Your task to perform on an android device: What's the latest technology news? Image 0: 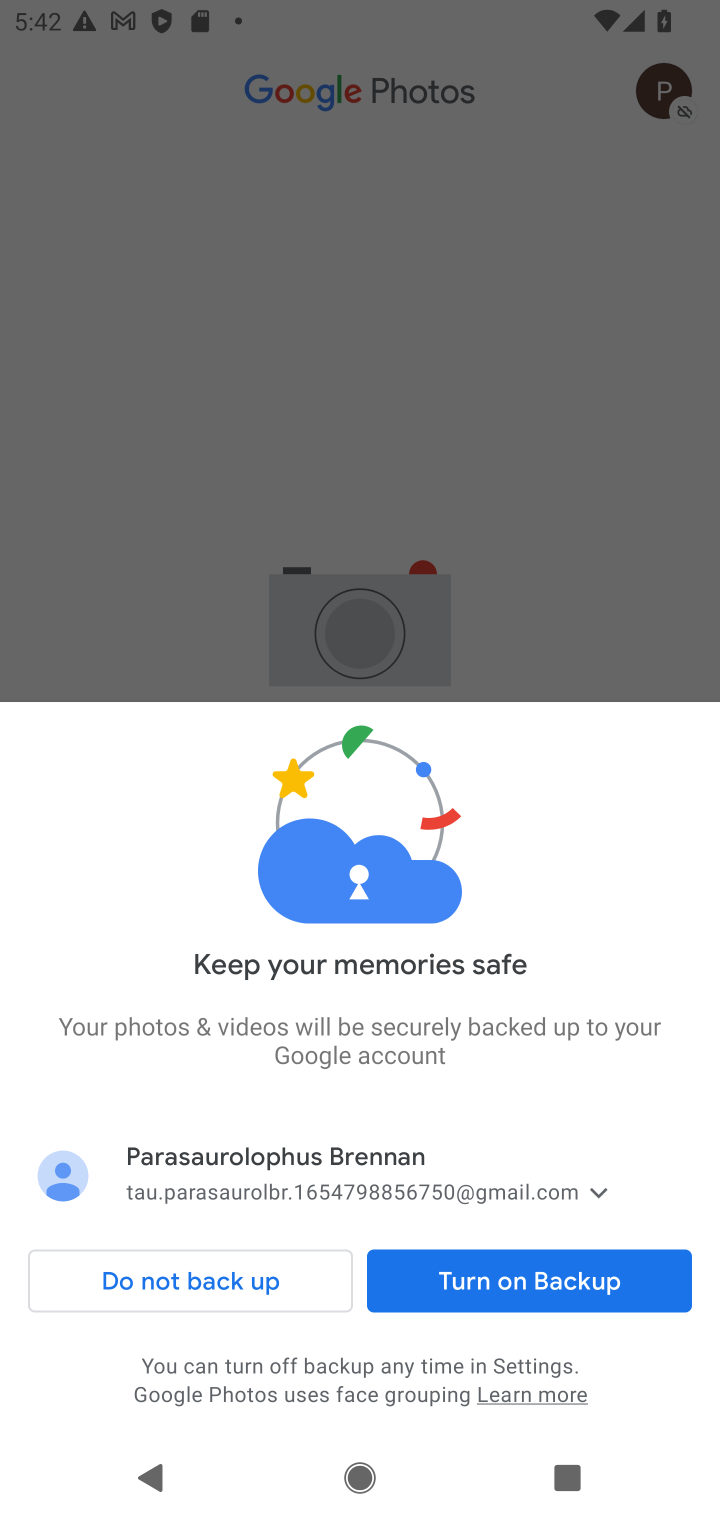
Step 0: press home button
Your task to perform on an android device: What's the latest technology news? Image 1: 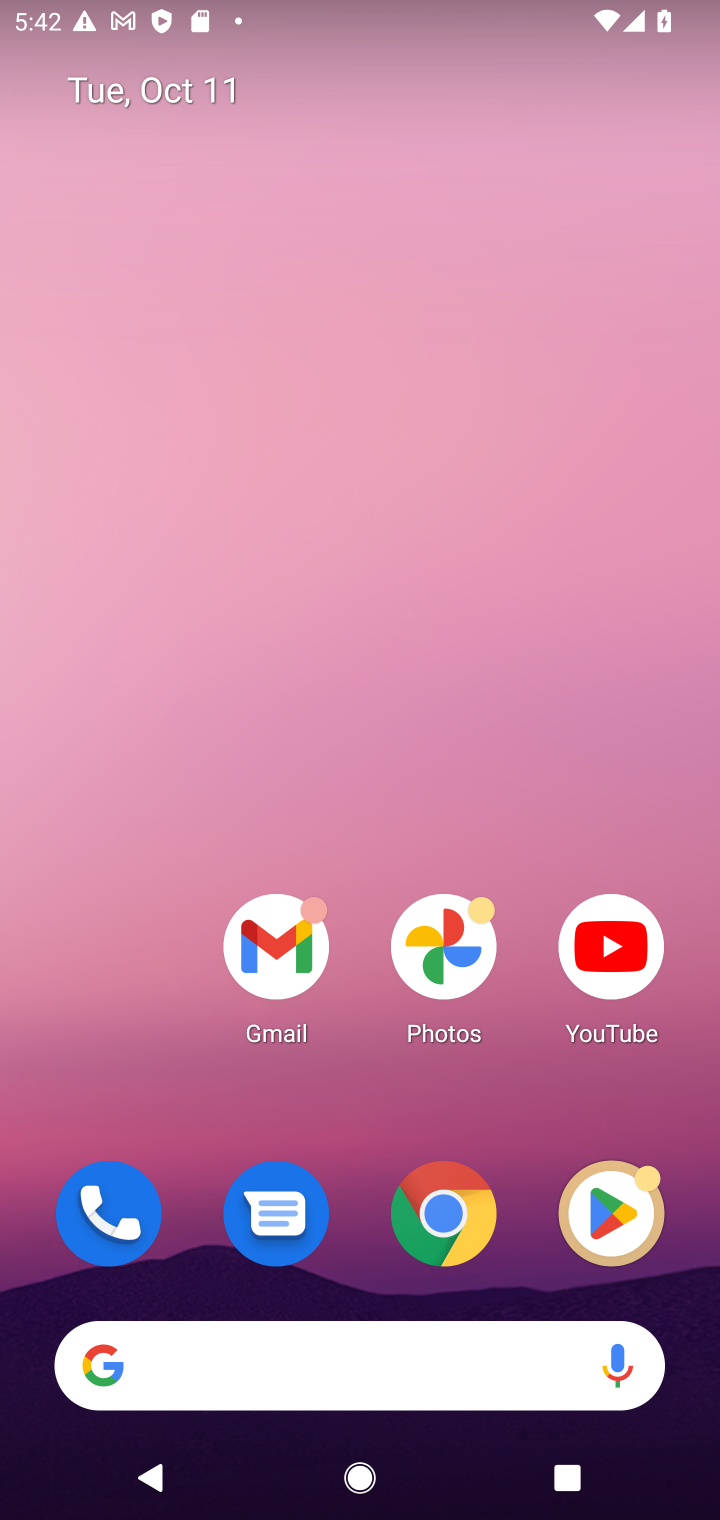
Step 1: drag from (363, 1352) to (375, 100)
Your task to perform on an android device: What's the latest technology news? Image 2: 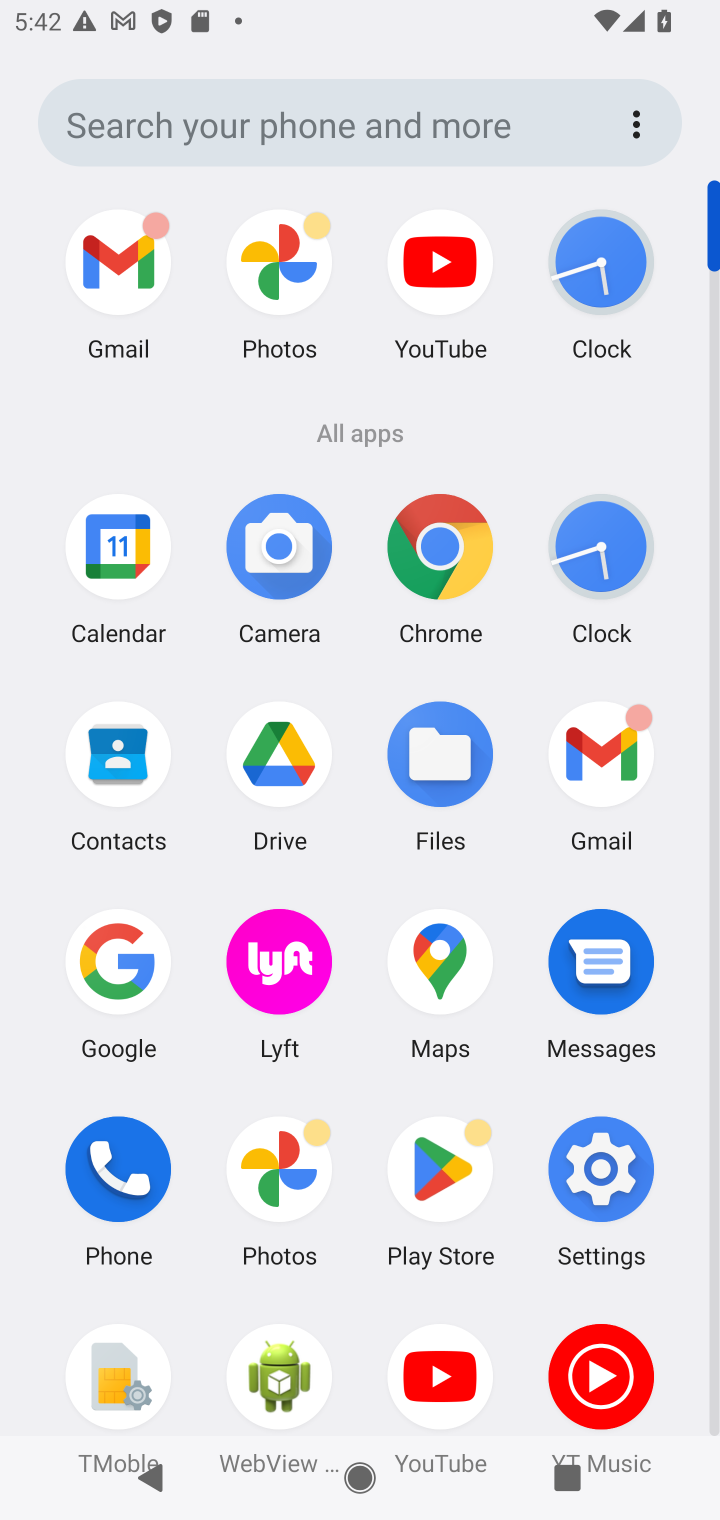
Step 2: click (124, 957)
Your task to perform on an android device: What's the latest technology news? Image 3: 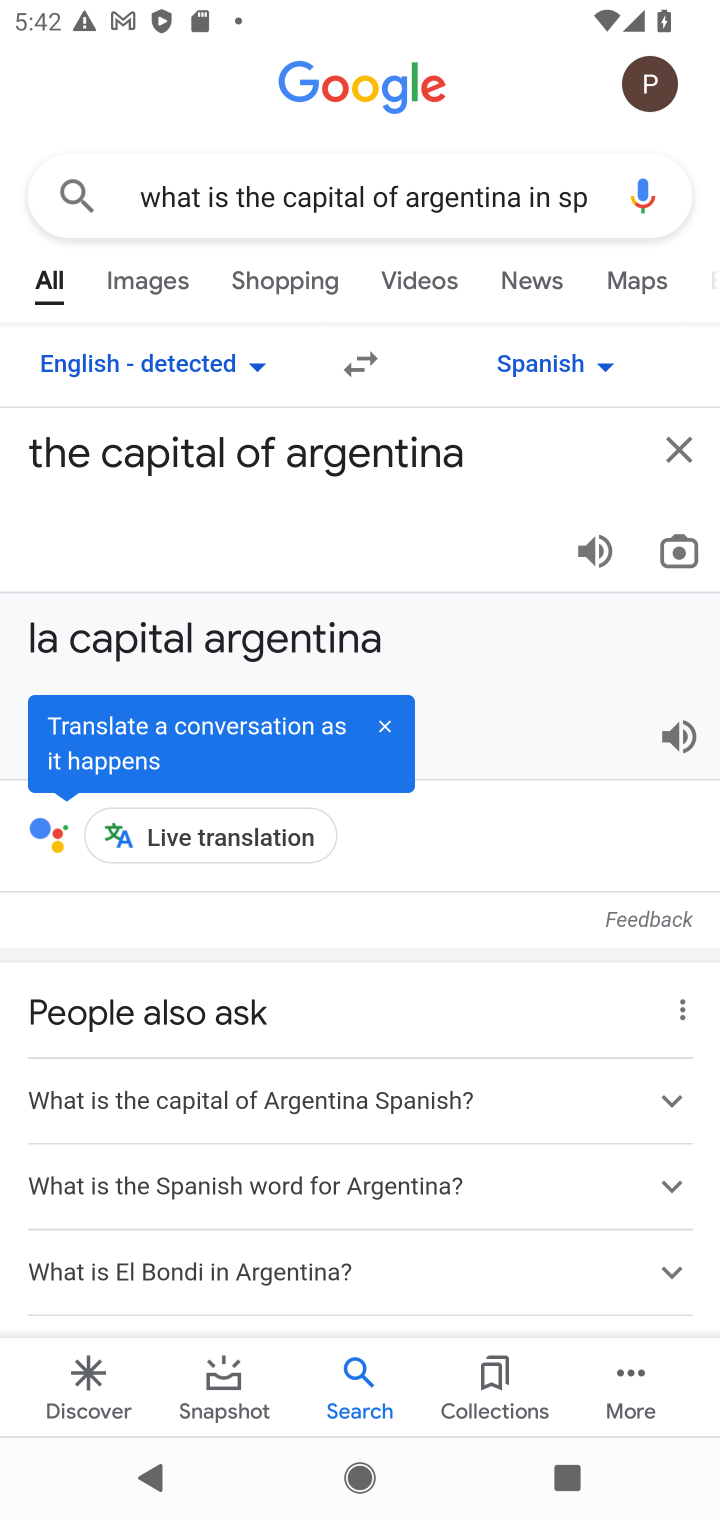
Step 3: click (339, 206)
Your task to perform on an android device: What's the latest technology news? Image 4: 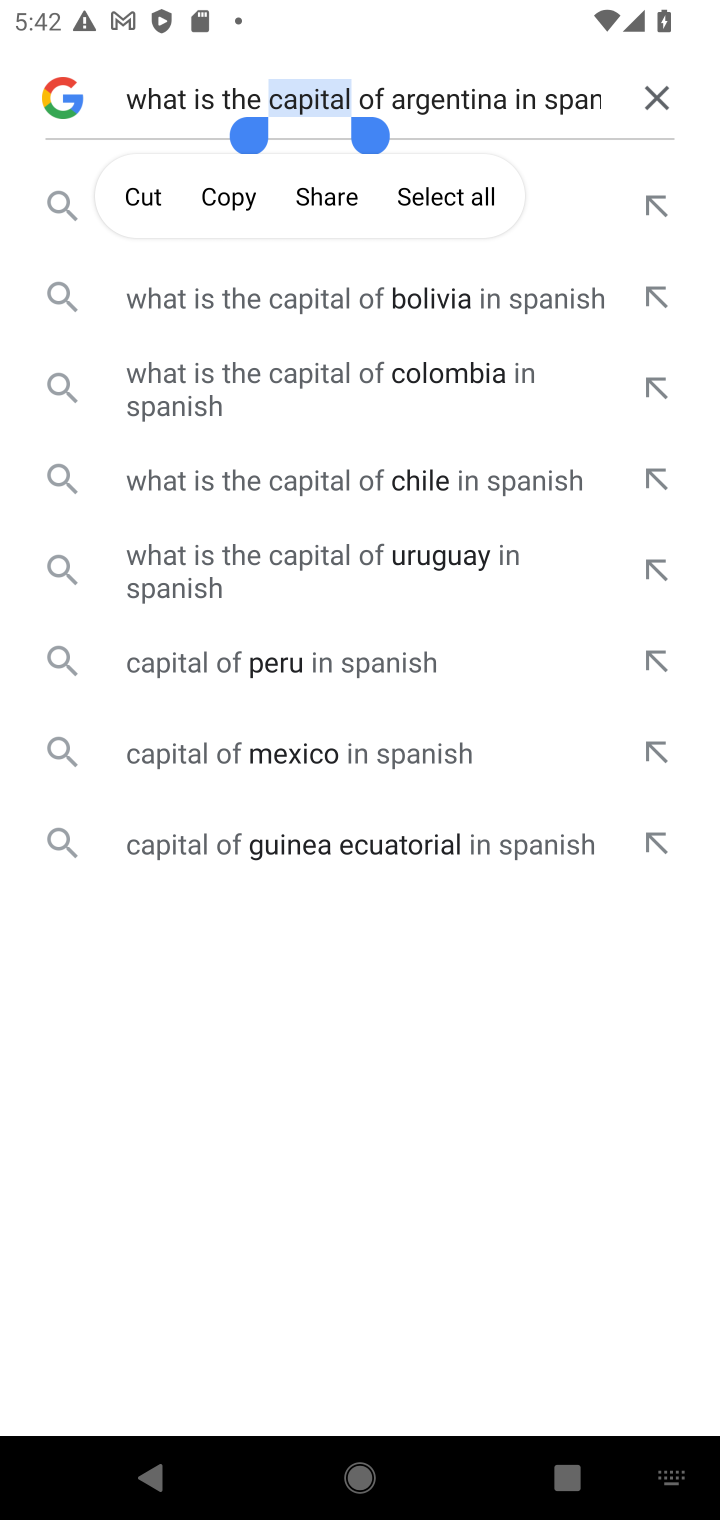
Step 4: click (655, 96)
Your task to perform on an android device: What's the latest technology news? Image 5: 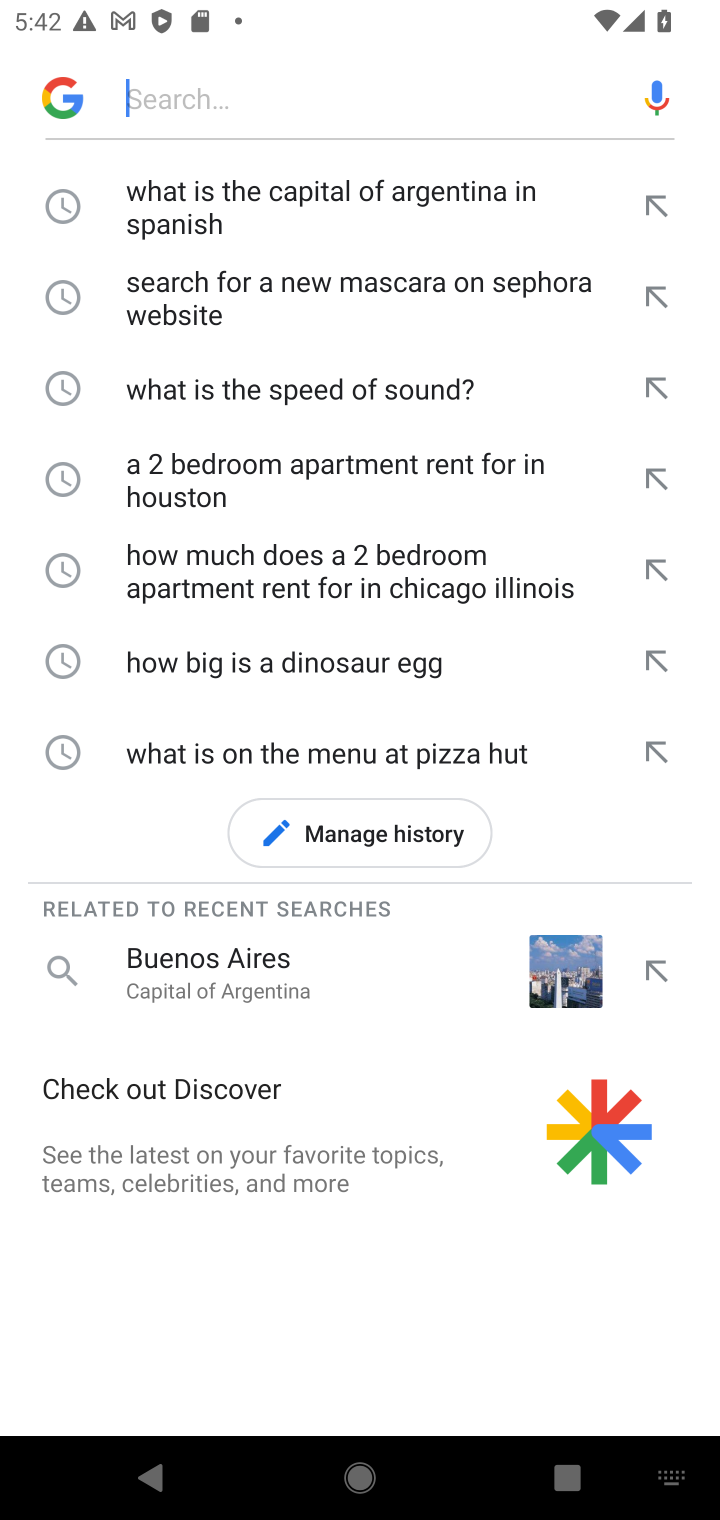
Step 5: type "What's the latest technology news?"
Your task to perform on an android device: What's the latest technology news? Image 6: 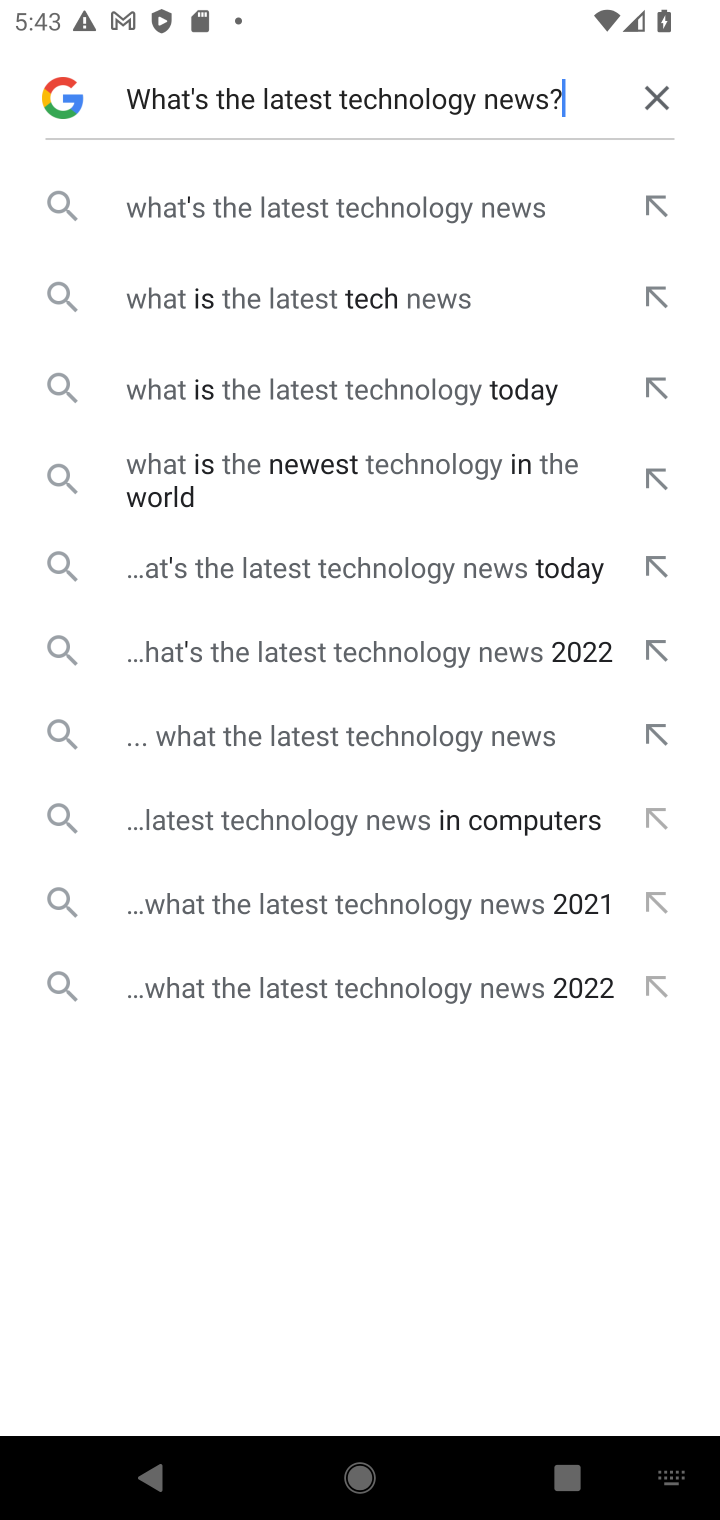
Step 6: click (342, 216)
Your task to perform on an android device: What's the latest technology news? Image 7: 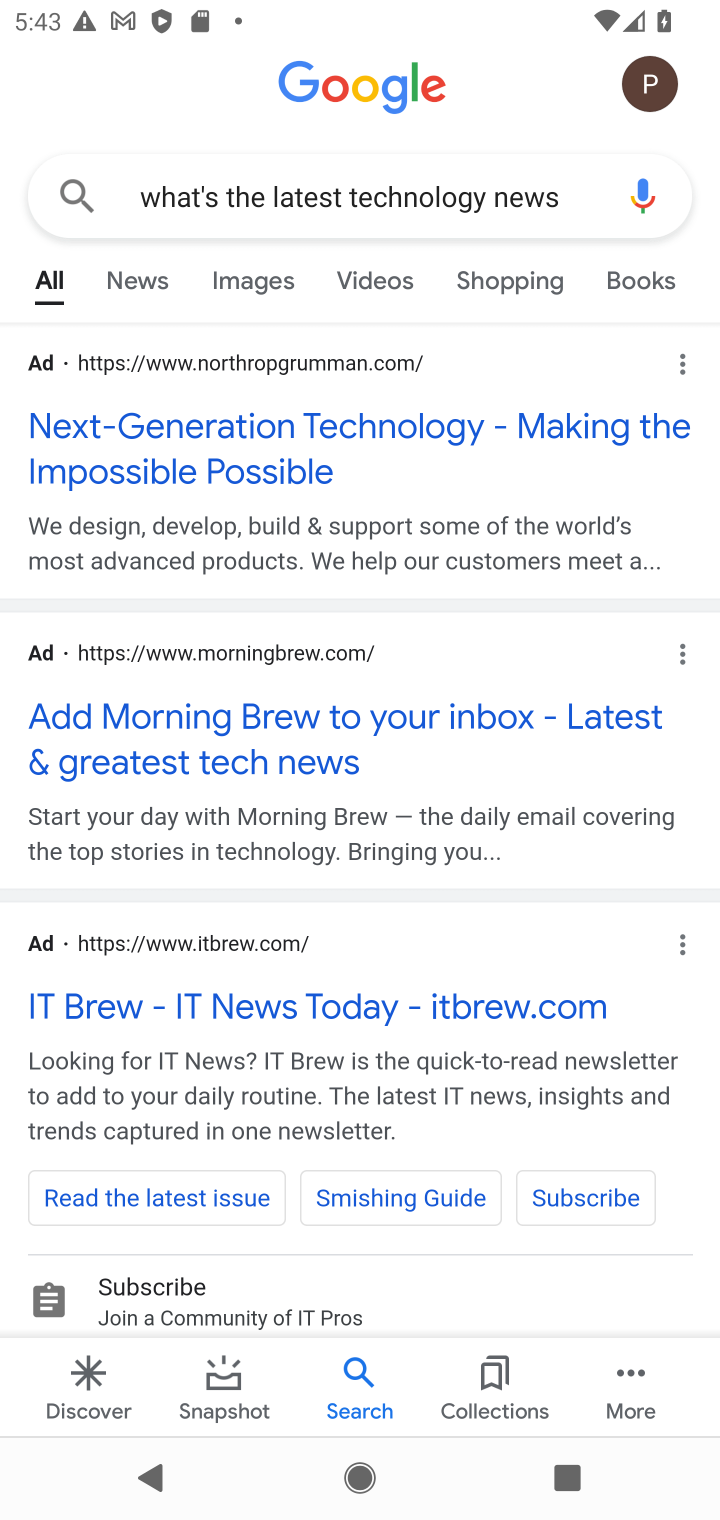
Step 7: click (245, 445)
Your task to perform on an android device: What's the latest technology news? Image 8: 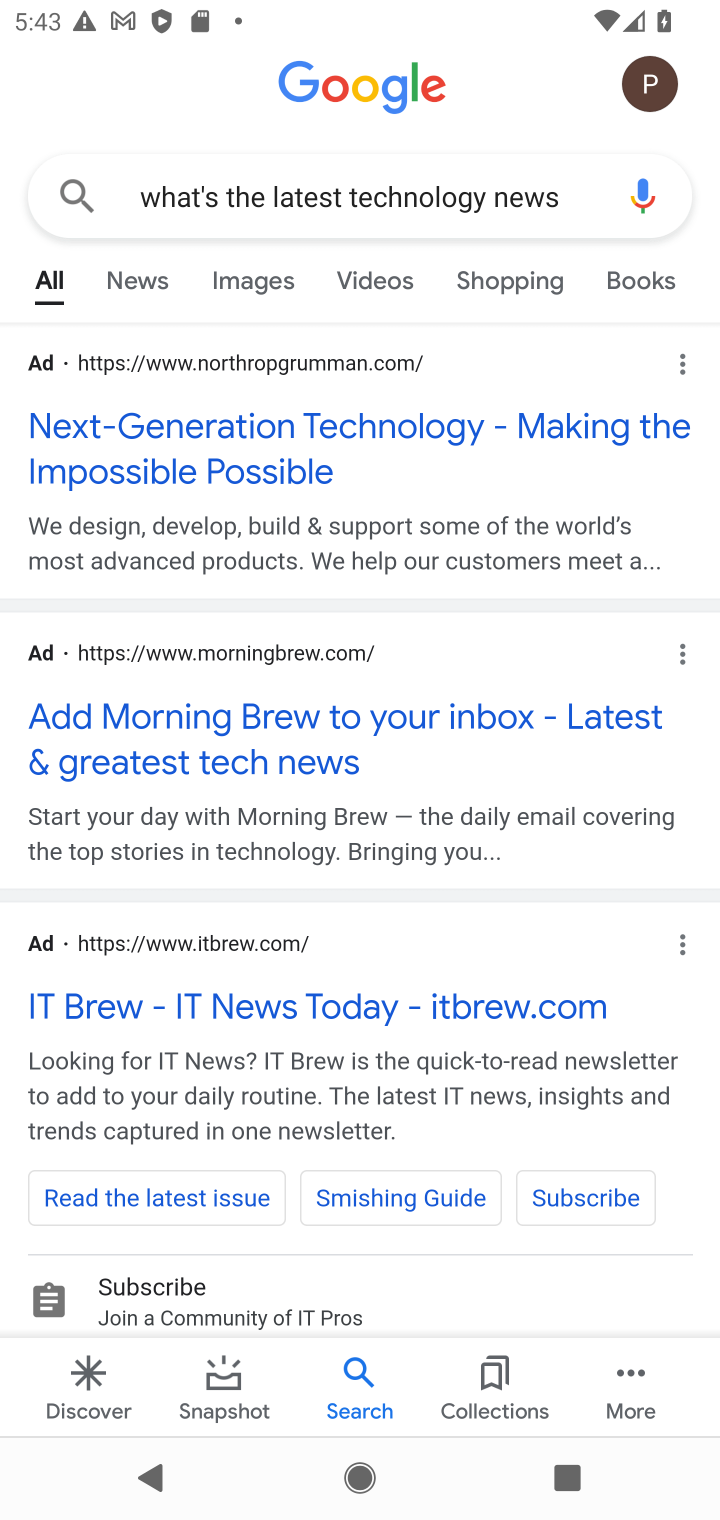
Step 8: click (333, 489)
Your task to perform on an android device: What's the latest technology news? Image 9: 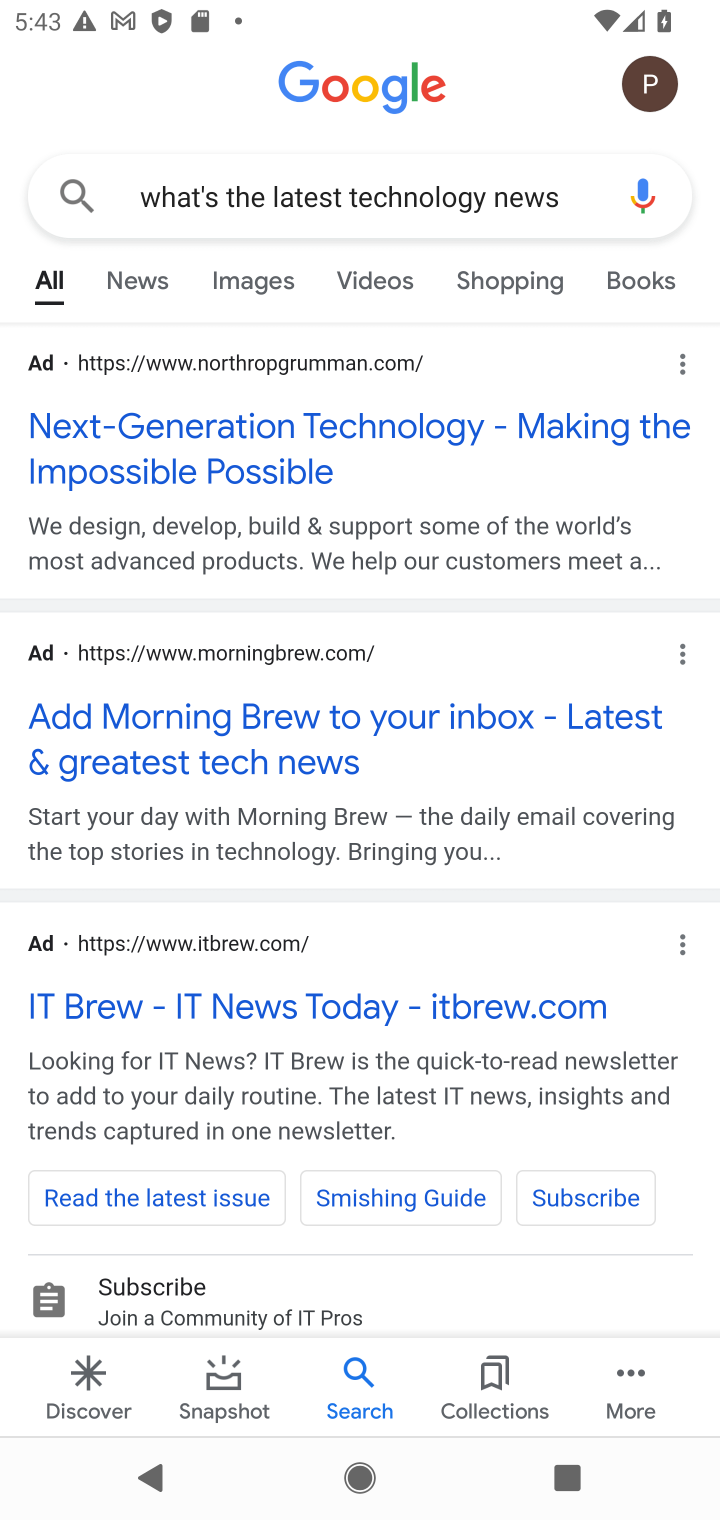
Step 9: click (264, 479)
Your task to perform on an android device: What's the latest technology news? Image 10: 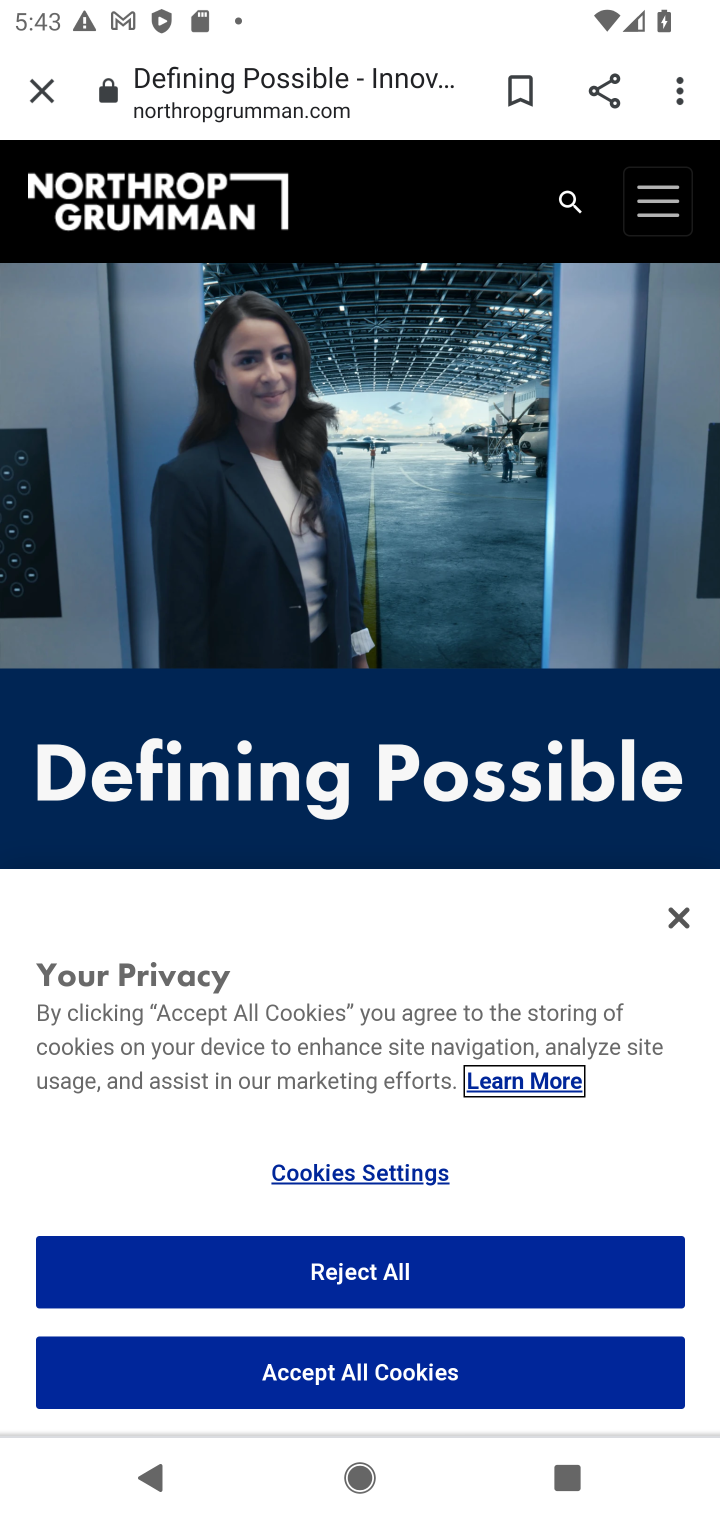
Step 10: task complete